Your task to perform on an android device: Open the Play Movies app and select the watchlist tab. Image 0: 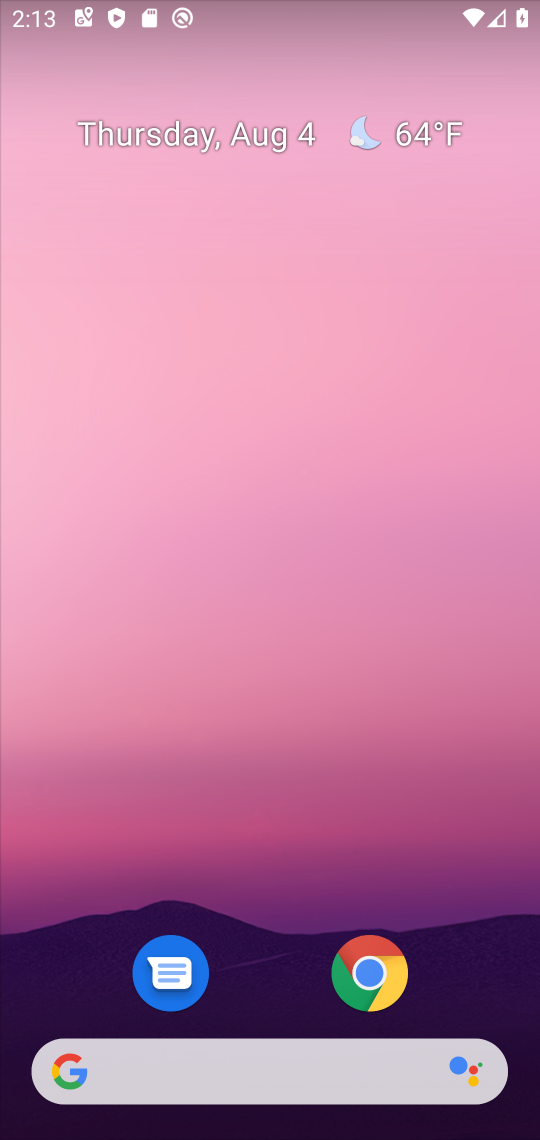
Step 0: drag from (269, 970) to (226, 260)
Your task to perform on an android device: Open the Play Movies app and select the watchlist tab. Image 1: 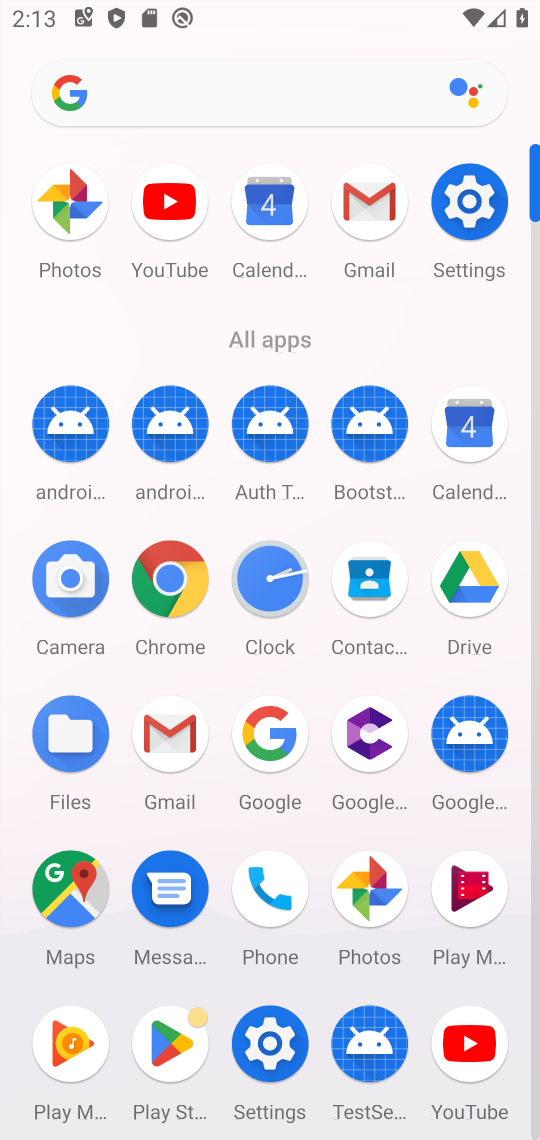
Step 1: click (455, 904)
Your task to perform on an android device: Open the Play Movies app and select the watchlist tab. Image 2: 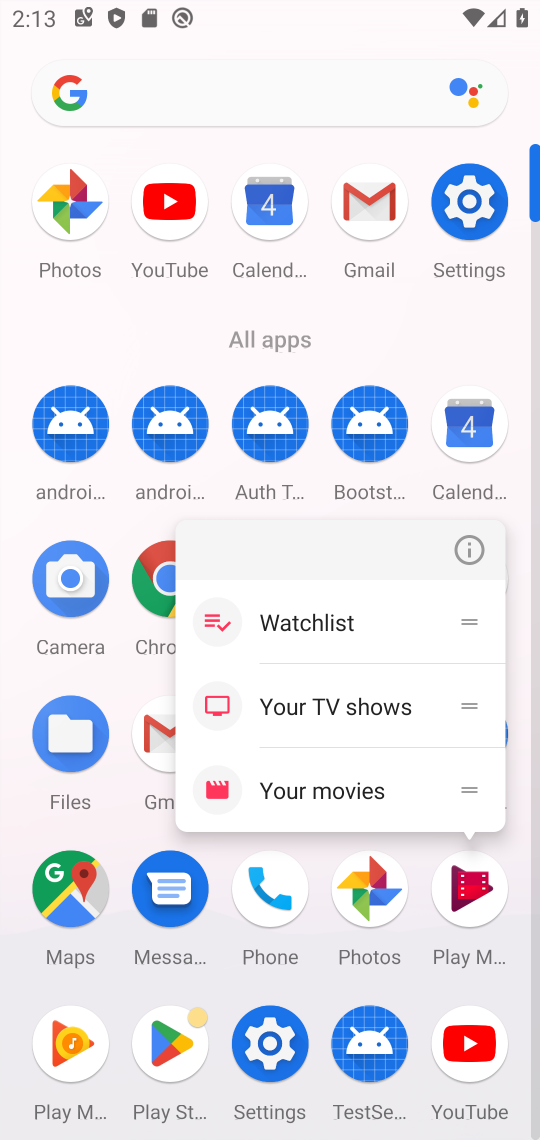
Step 2: click (457, 905)
Your task to perform on an android device: Open the Play Movies app and select the watchlist tab. Image 3: 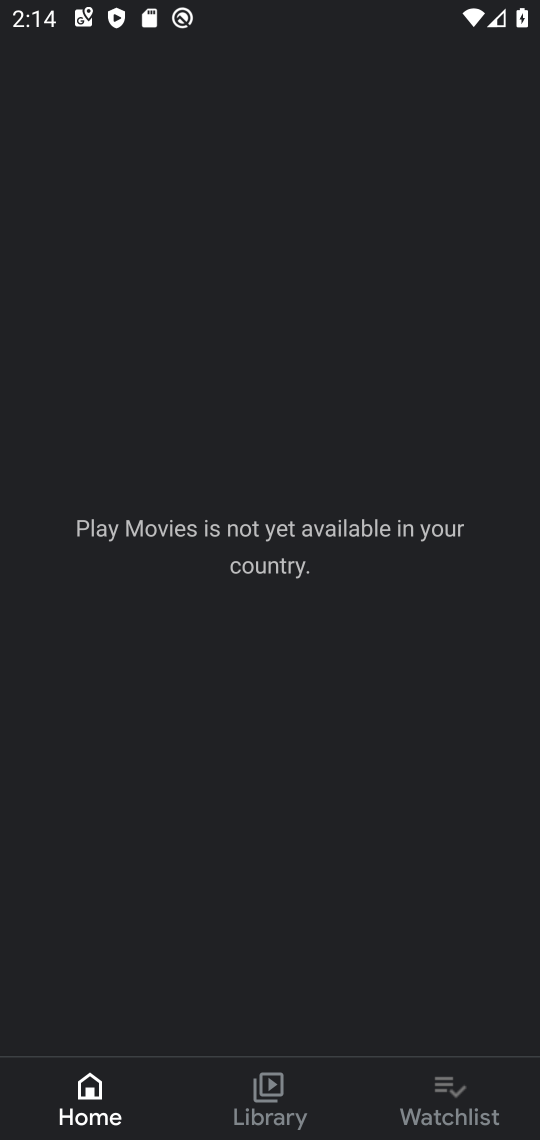
Step 3: click (450, 1085)
Your task to perform on an android device: Open the Play Movies app and select the watchlist tab. Image 4: 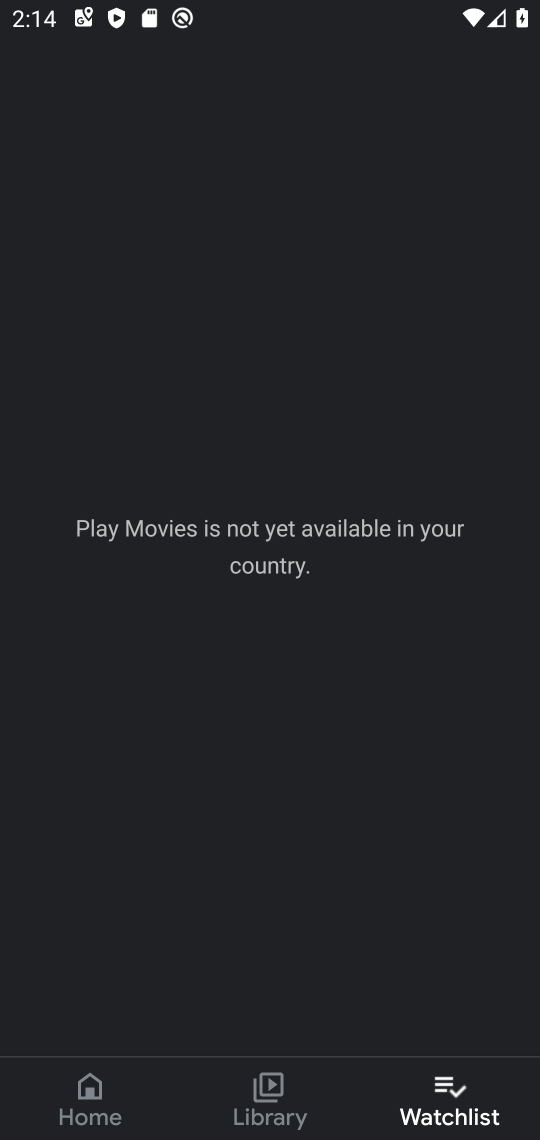
Step 4: task complete